Your task to perform on an android device: Open notification settings Image 0: 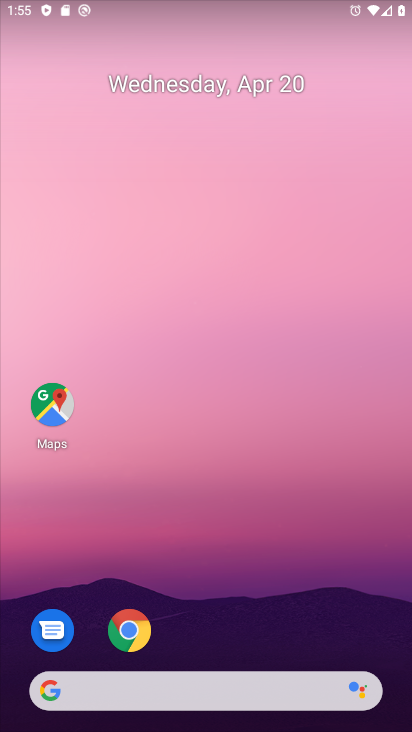
Step 0: drag from (167, 626) to (141, 128)
Your task to perform on an android device: Open notification settings Image 1: 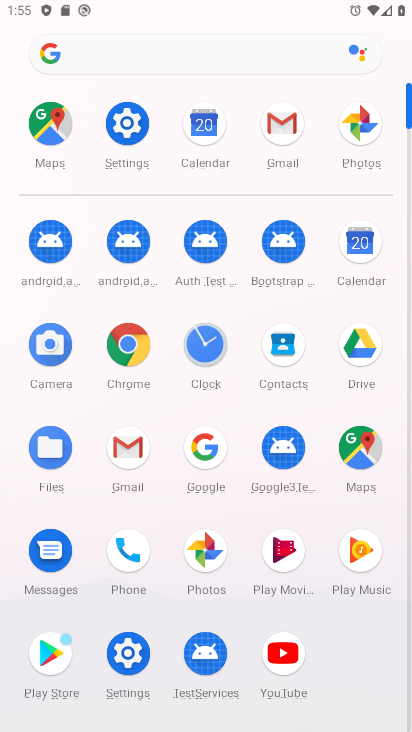
Step 1: click (123, 123)
Your task to perform on an android device: Open notification settings Image 2: 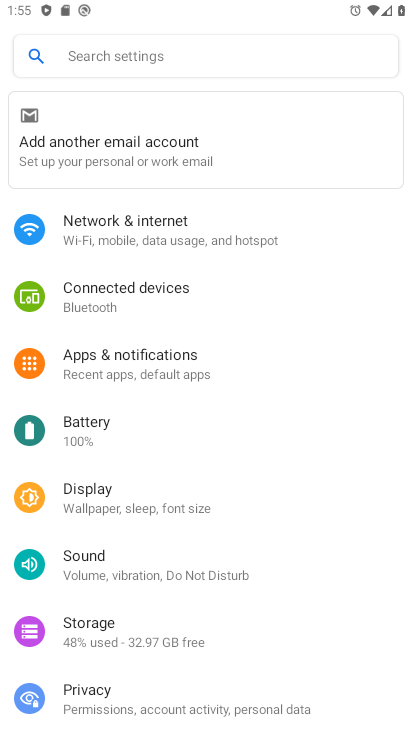
Step 2: click (133, 370)
Your task to perform on an android device: Open notification settings Image 3: 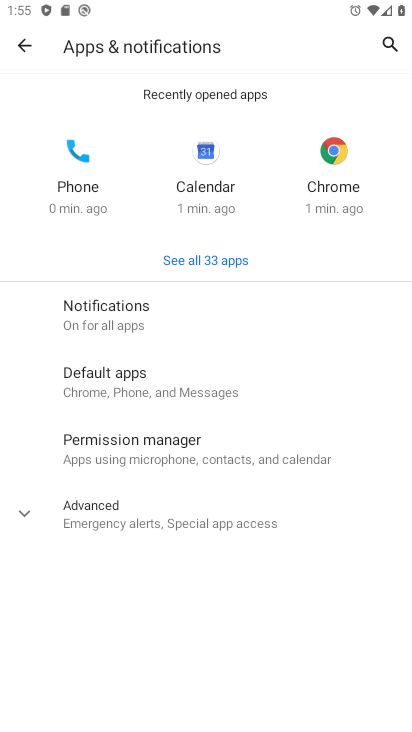
Step 3: click (95, 312)
Your task to perform on an android device: Open notification settings Image 4: 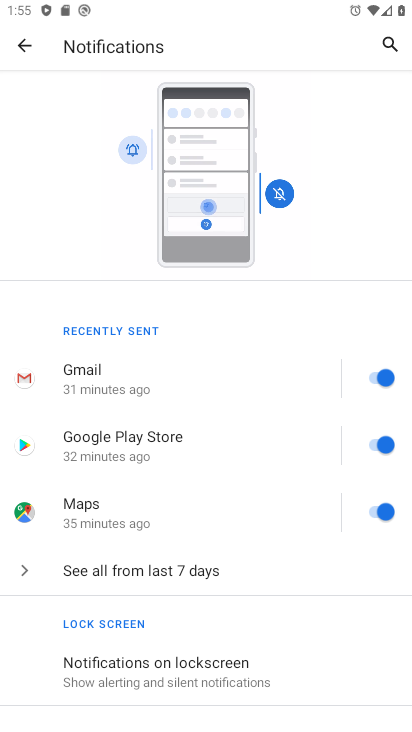
Step 4: task complete